Your task to perform on an android device: turn off data saver in the chrome app Image 0: 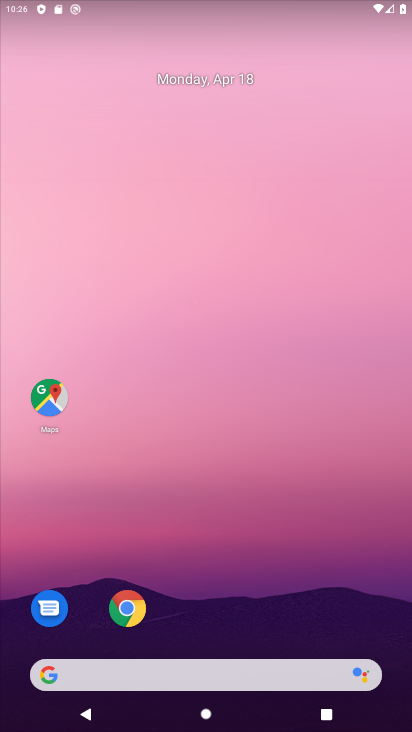
Step 0: drag from (250, 596) to (237, 286)
Your task to perform on an android device: turn off data saver in the chrome app Image 1: 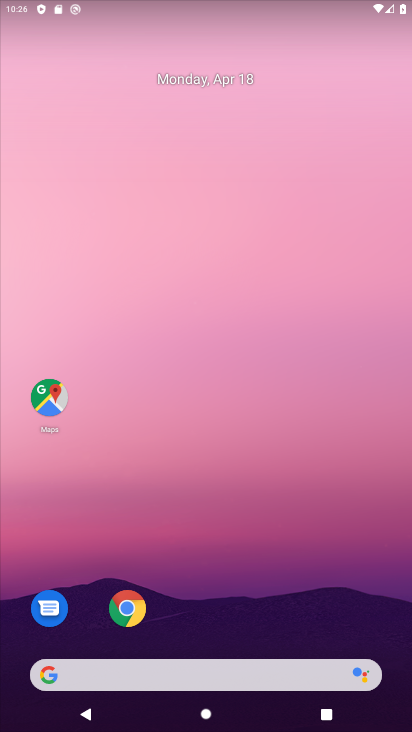
Step 1: drag from (317, 619) to (295, 183)
Your task to perform on an android device: turn off data saver in the chrome app Image 2: 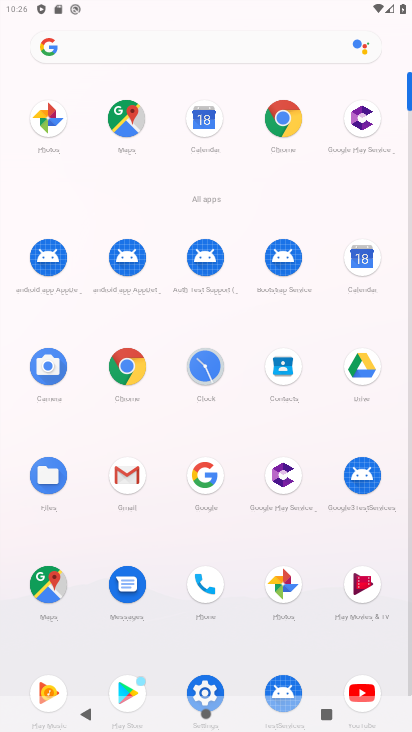
Step 2: click (283, 118)
Your task to perform on an android device: turn off data saver in the chrome app Image 3: 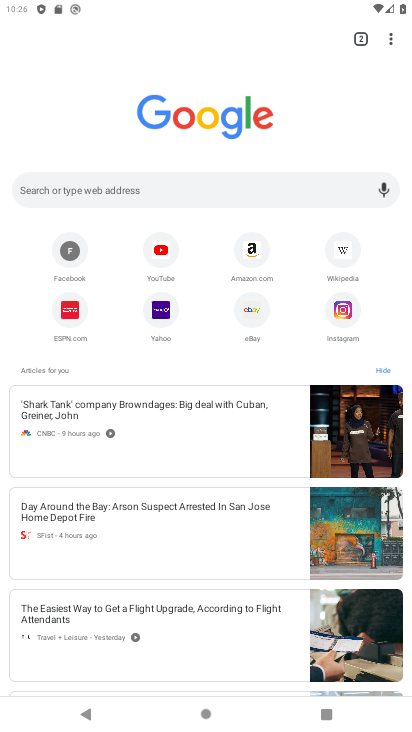
Step 3: drag from (391, 42) to (263, 324)
Your task to perform on an android device: turn off data saver in the chrome app Image 4: 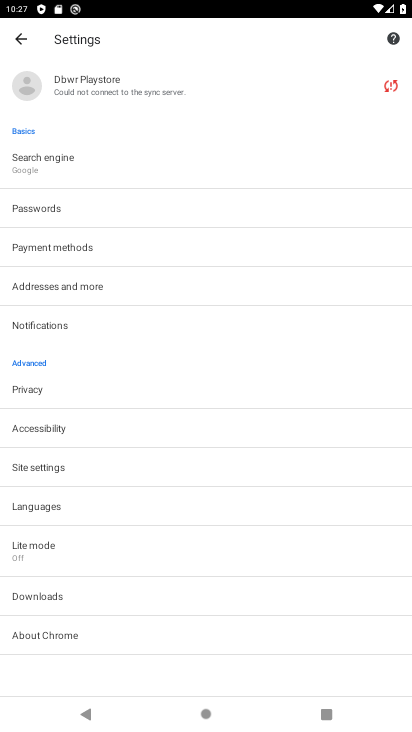
Step 4: click (183, 549)
Your task to perform on an android device: turn off data saver in the chrome app Image 5: 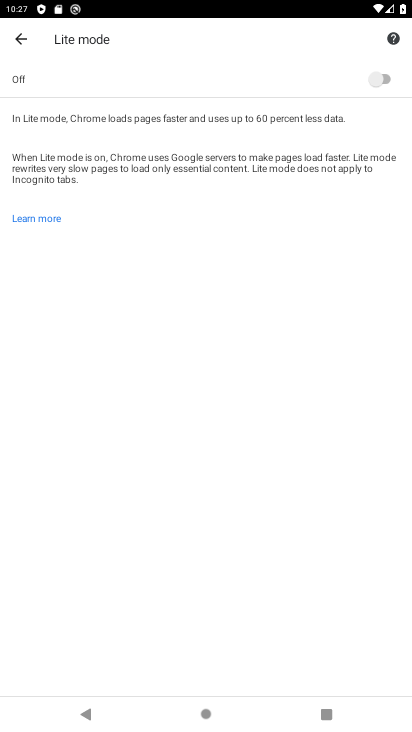
Step 5: task complete